Your task to perform on an android device: Open the phone app and click the voicemail tab. Image 0: 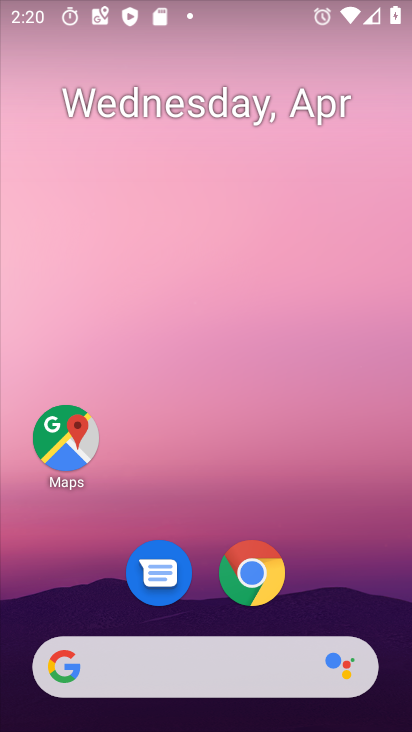
Step 0: drag from (343, 588) to (350, 326)
Your task to perform on an android device: Open the phone app and click the voicemail tab. Image 1: 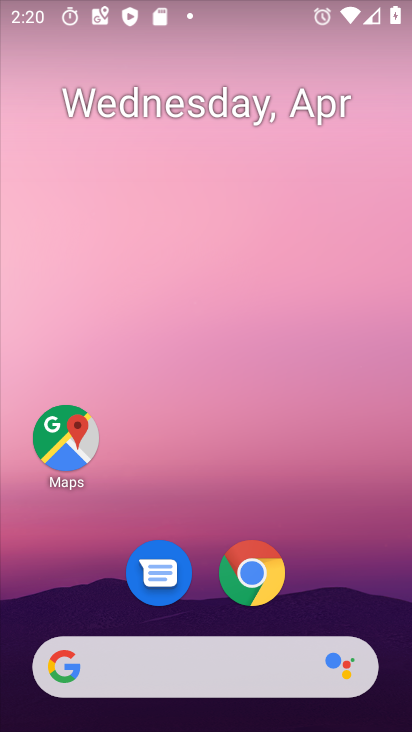
Step 1: drag from (355, 560) to (360, 152)
Your task to perform on an android device: Open the phone app and click the voicemail tab. Image 2: 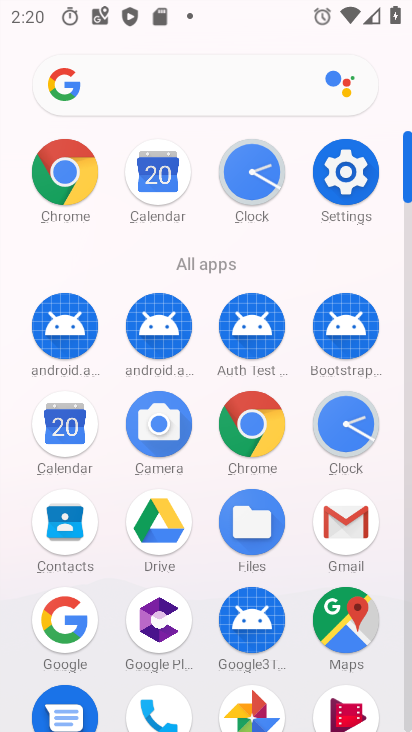
Step 2: drag from (393, 587) to (393, 383)
Your task to perform on an android device: Open the phone app and click the voicemail tab. Image 3: 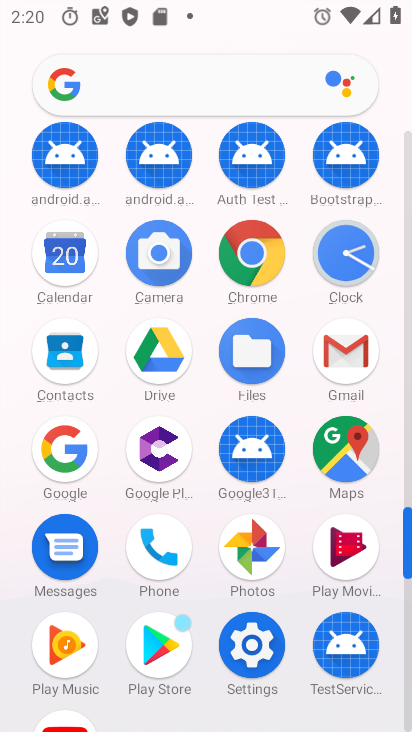
Step 3: click (147, 561)
Your task to perform on an android device: Open the phone app and click the voicemail tab. Image 4: 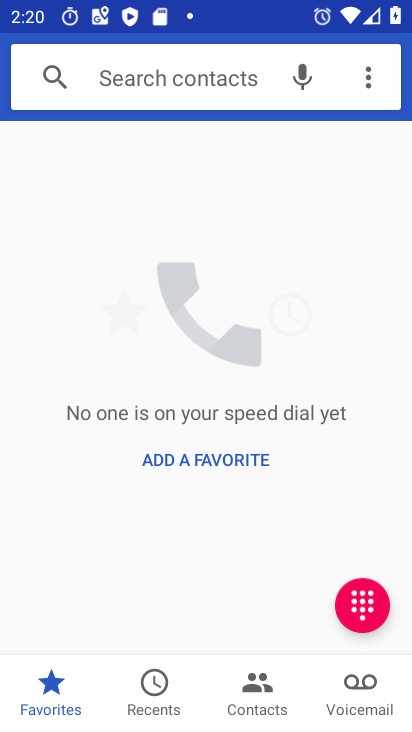
Step 4: click (347, 695)
Your task to perform on an android device: Open the phone app and click the voicemail tab. Image 5: 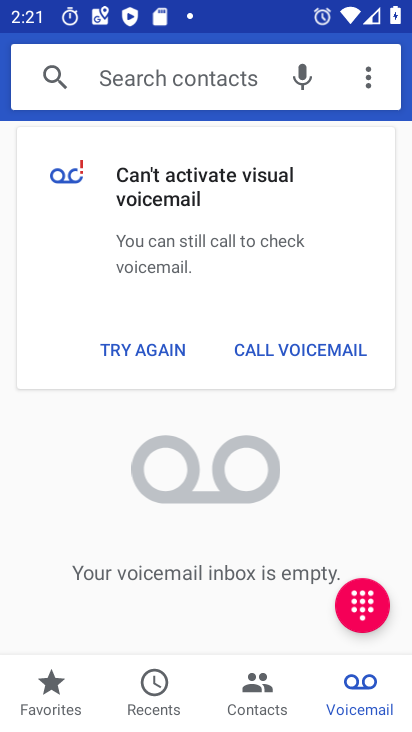
Step 5: task complete